Your task to perform on an android device: turn on javascript in the chrome app Image 0: 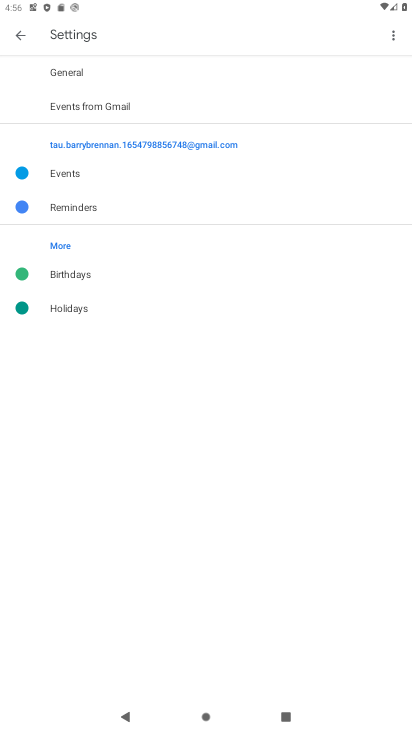
Step 0: press home button
Your task to perform on an android device: turn on javascript in the chrome app Image 1: 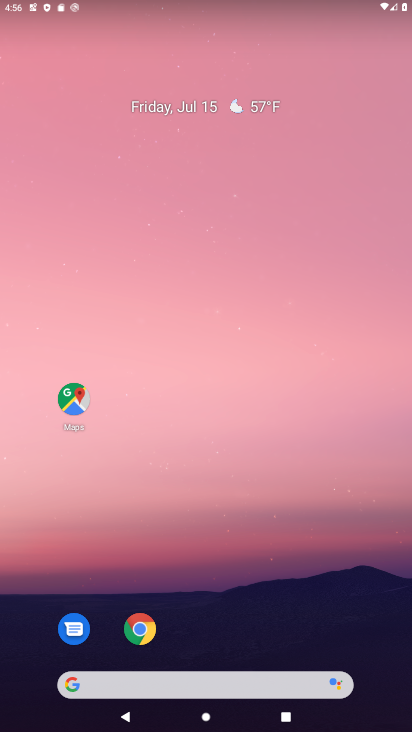
Step 1: click (137, 625)
Your task to perform on an android device: turn on javascript in the chrome app Image 2: 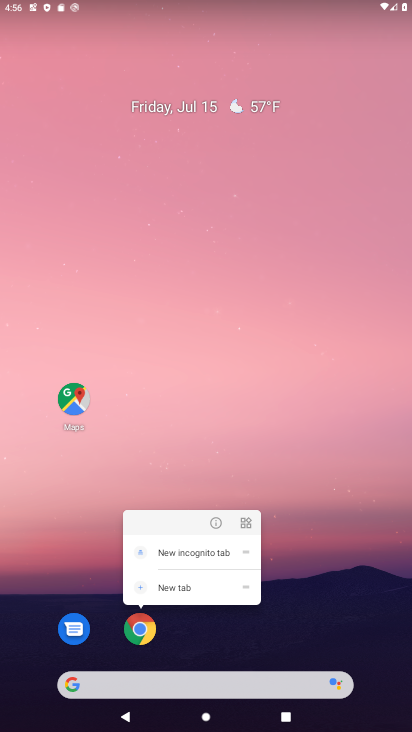
Step 2: click (137, 625)
Your task to perform on an android device: turn on javascript in the chrome app Image 3: 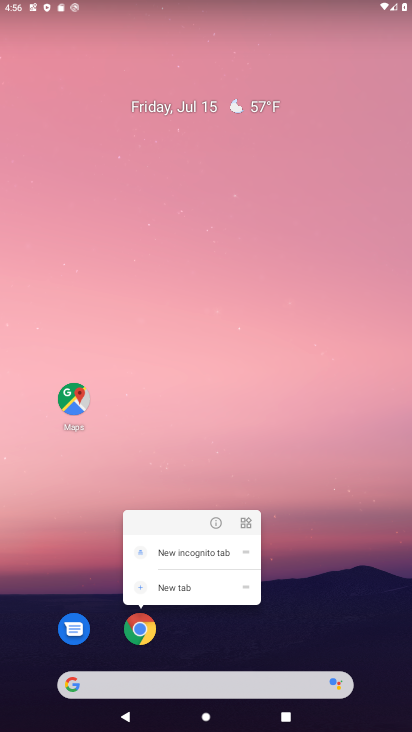
Step 3: click (137, 625)
Your task to perform on an android device: turn on javascript in the chrome app Image 4: 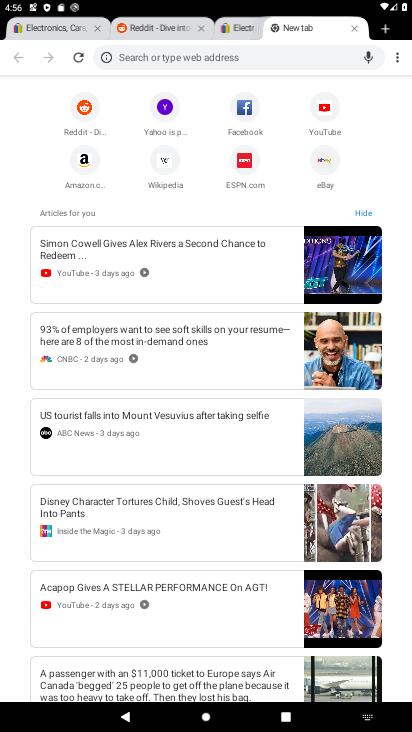
Step 4: click (393, 55)
Your task to perform on an android device: turn on javascript in the chrome app Image 5: 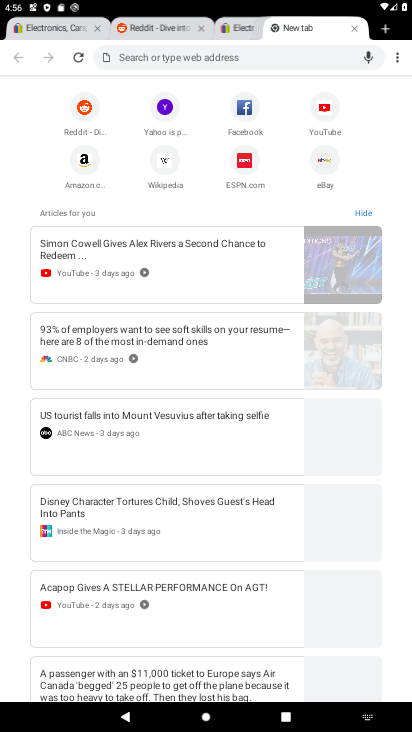
Step 5: drag from (393, 55) to (280, 272)
Your task to perform on an android device: turn on javascript in the chrome app Image 6: 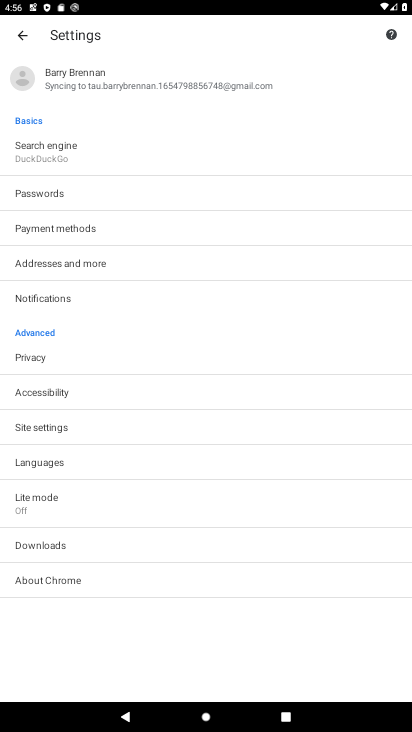
Step 6: click (41, 431)
Your task to perform on an android device: turn on javascript in the chrome app Image 7: 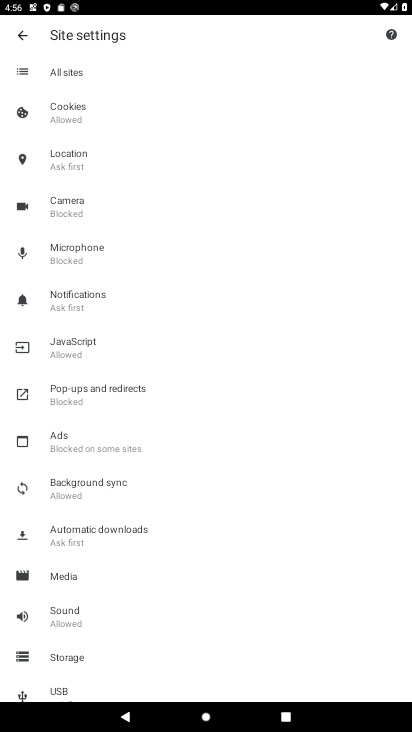
Step 7: click (87, 344)
Your task to perform on an android device: turn on javascript in the chrome app Image 8: 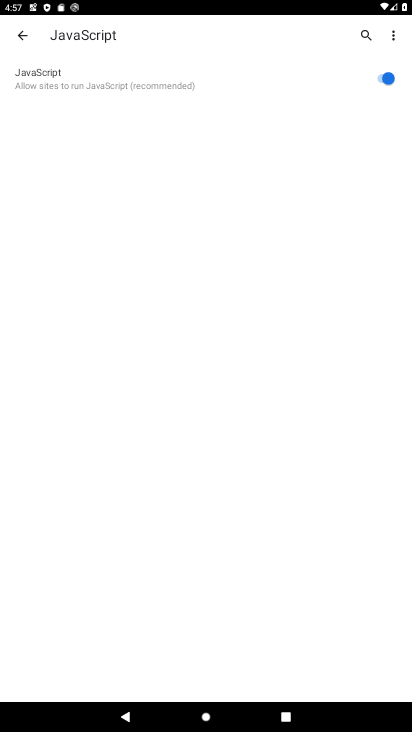
Step 8: task complete